Your task to perform on an android device: Open accessibility settings Image 0: 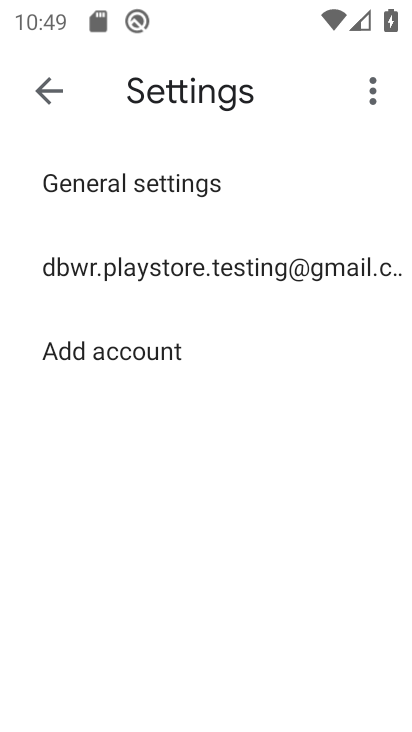
Step 0: press home button
Your task to perform on an android device: Open accessibility settings Image 1: 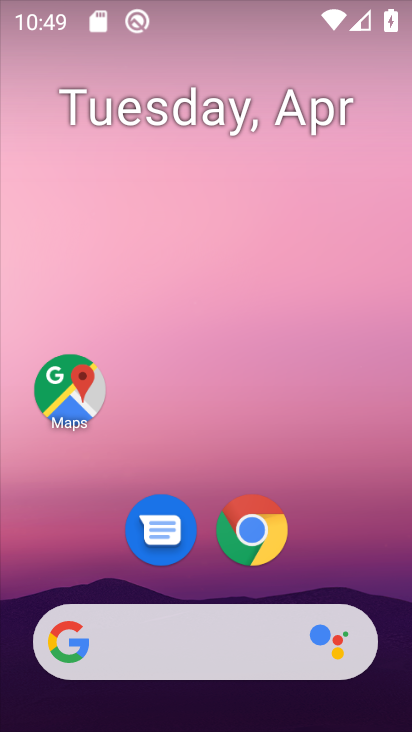
Step 1: drag from (176, 644) to (337, 54)
Your task to perform on an android device: Open accessibility settings Image 2: 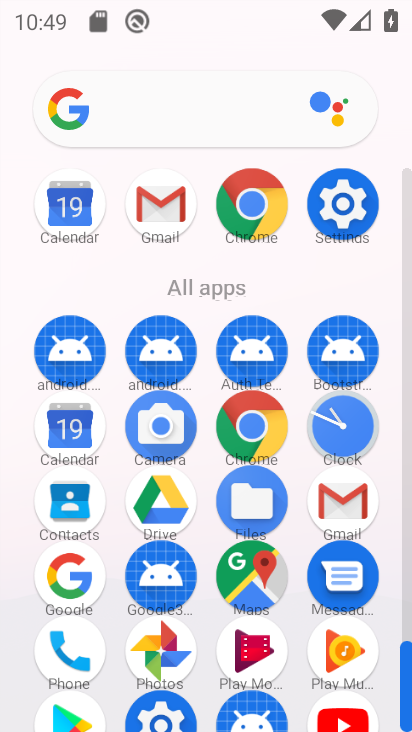
Step 2: click (339, 206)
Your task to perform on an android device: Open accessibility settings Image 3: 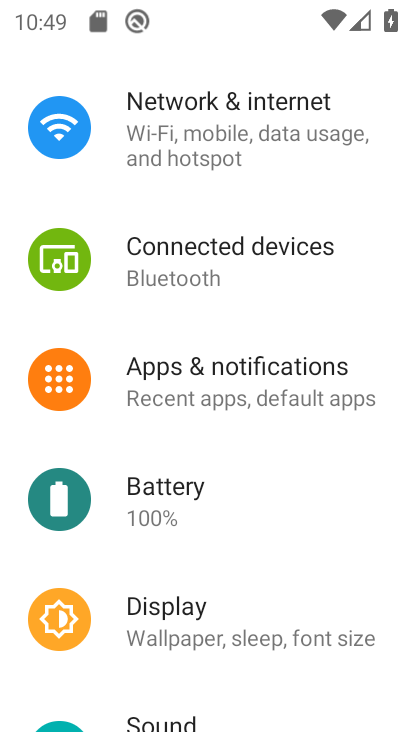
Step 3: drag from (207, 529) to (338, 133)
Your task to perform on an android device: Open accessibility settings Image 4: 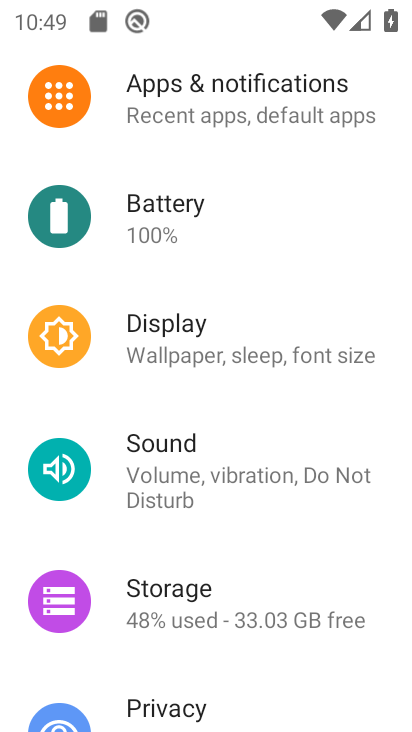
Step 4: drag from (222, 654) to (405, 14)
Your task to perform on an android device: Open accessibility settings Image 5: 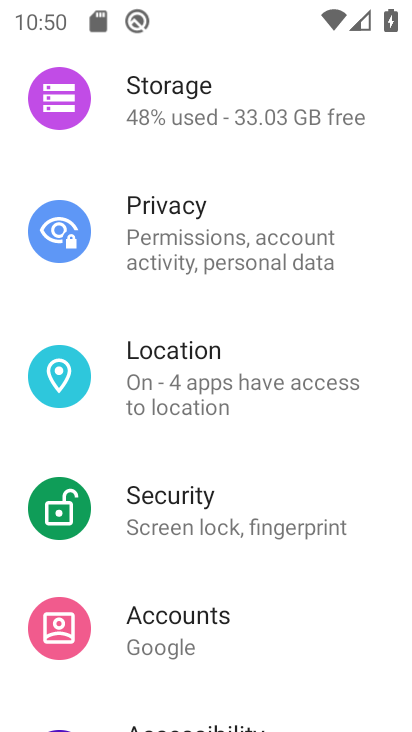
Step 5: drag from (205, 648) to (396, 12)
Your task to perform on an android device: Open accessibility settings Image 6: 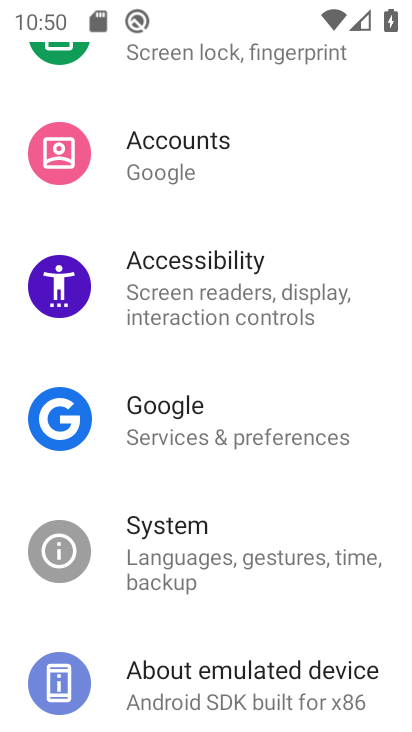
Step 6: click (225, 271)
Your task to perform on an android device: Open accessibility settings Image 7: 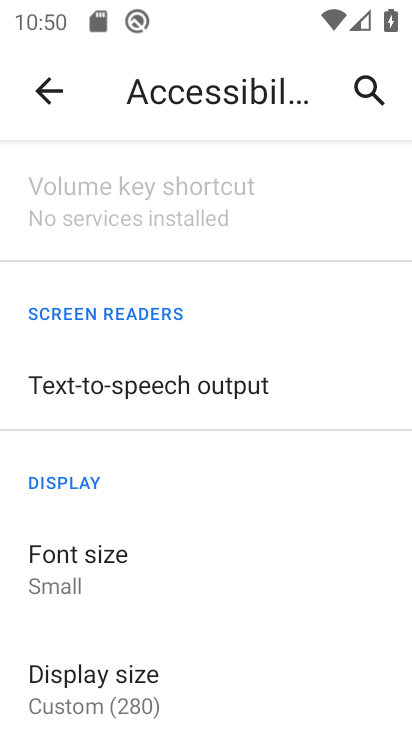
Step 7: task complete